Your task to perform on an android device: turn pop-ups on in chrome Image 0: 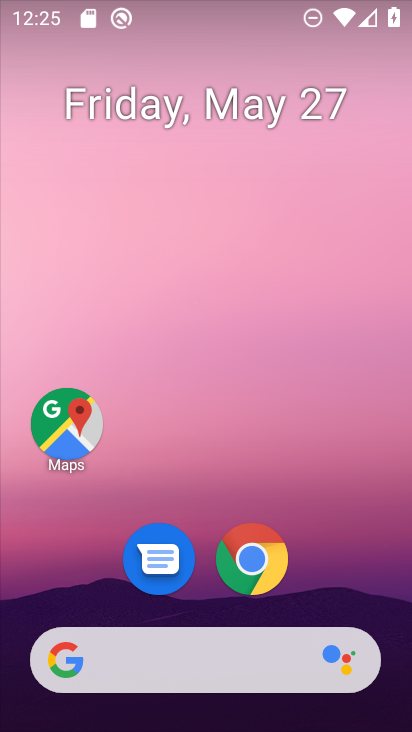
Step 0: click (262, 561)
Your task to perform on an android device: turn pop-ups on in chrome Image 1: 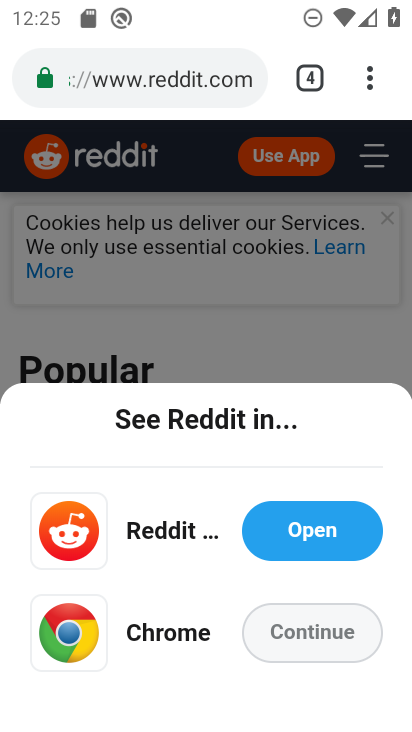
Step 1: click (365, 90)
Your task to perform on an android device: turn pop-ups on in chrome Image 2: 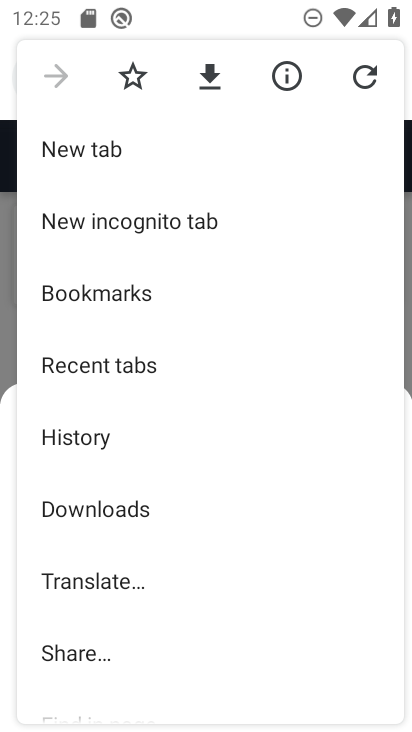
Step 2: drag from (135, 606) to (138, 449)
Your task to perform on an android device: turn pop-ups on in chrome Image 3: 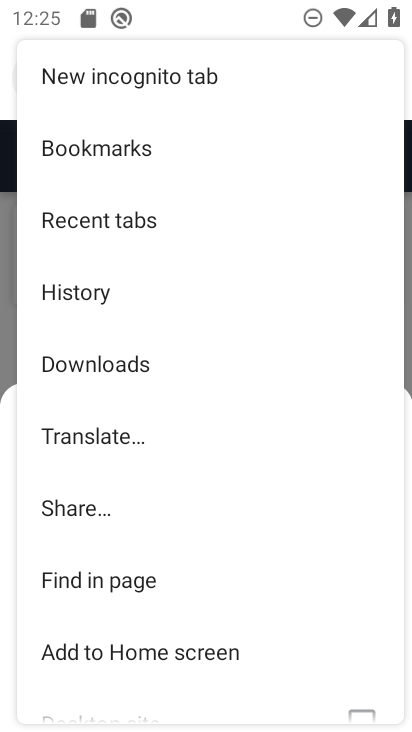
Step 3: drag from (138, 698) to (169, 130)
Your task to perform on an android device: turn pop-ups on in chrome Image 4: 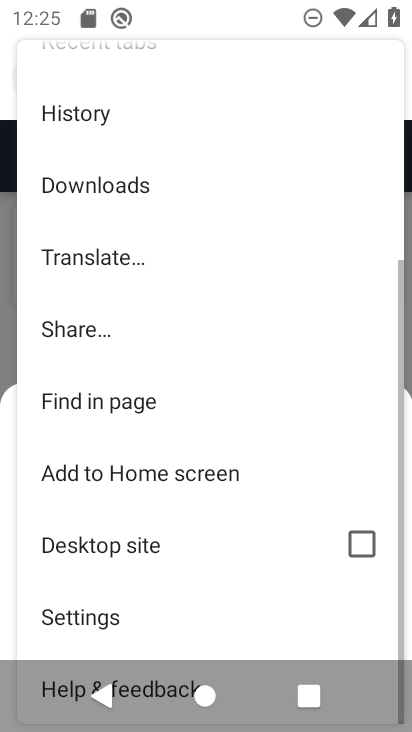
Step 4: click (56, 565)
Your task to perform on an android device: turn pop-ups on in chrome Image 5: 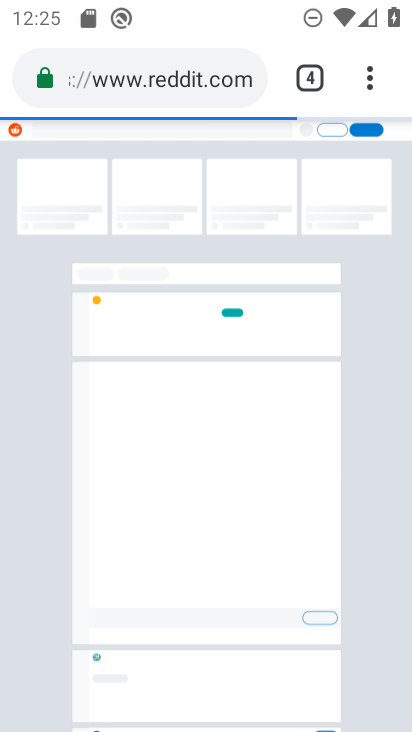
Step 5: click (371, 83)
Your task to perform on an android device: turn pop-ups on in chrome Image 6: 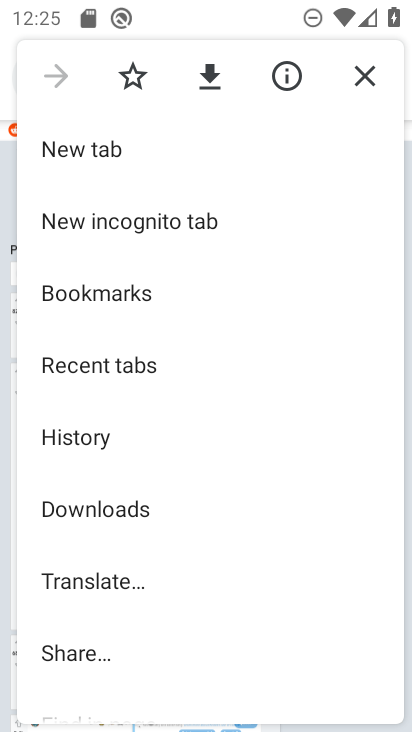
Step 6: drag from (54, 697) to (241, 164)
Your task to perform on an android device: turn pop-ups on in chrome Image 7: 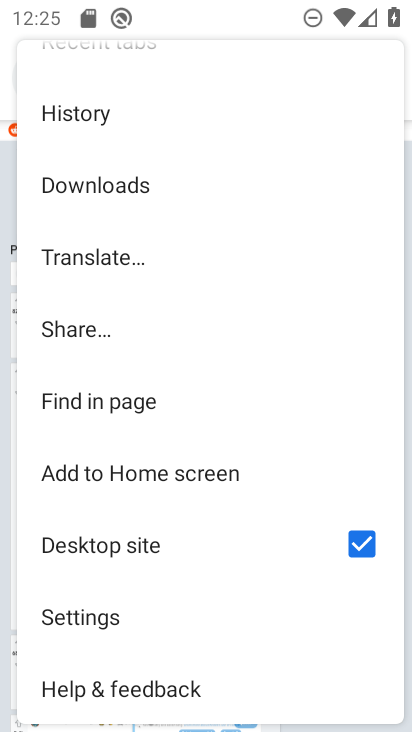
Step 7: click (116, 619)
Your task to perform on an android device: turn pop-ups on in chrome Image 8: 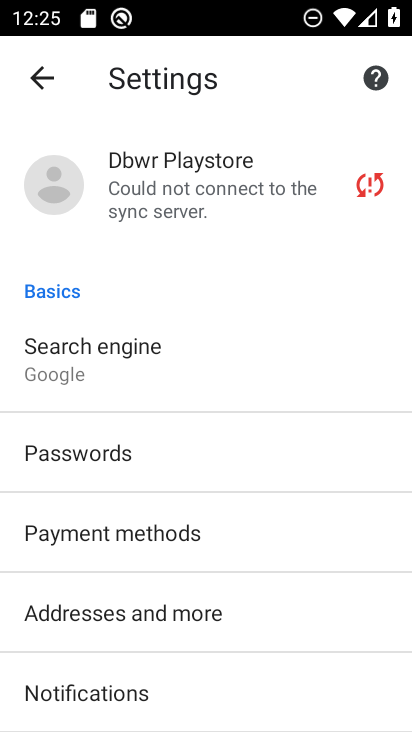
Step 8: drag from (132, 568) to (208, 99)
Your task to perform on an android device: turn pop-ups on in chrome Image 9: 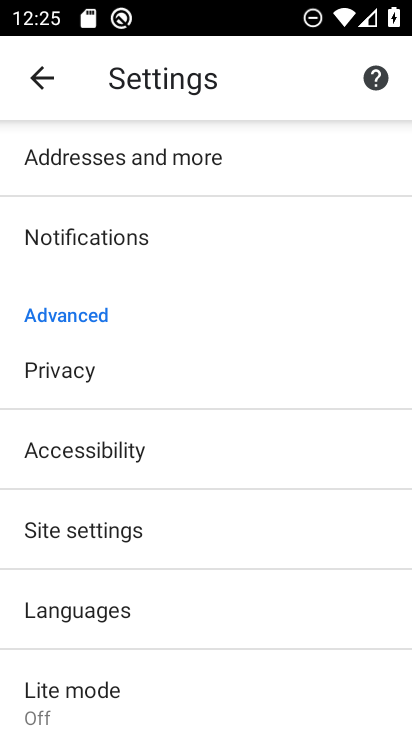
Step 9: click (132, 536)
Your task to perform on an android device: turn pop-ups on in chrome Image 10: 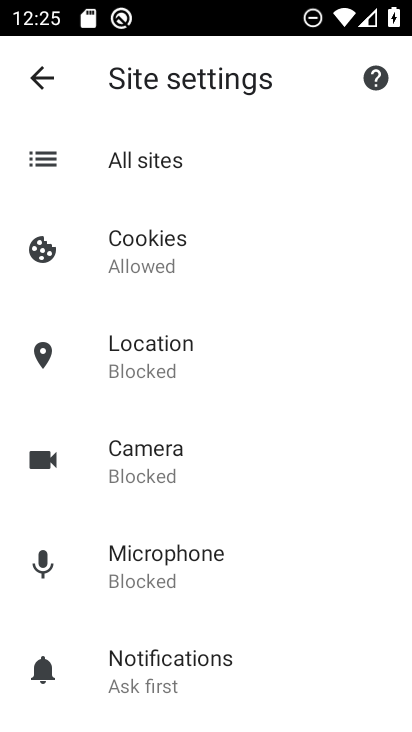
Step 10: drag from (137, 594) to (235, 226)
Your task to perform on an android device: turn pop-ups on in chrome Image 11: 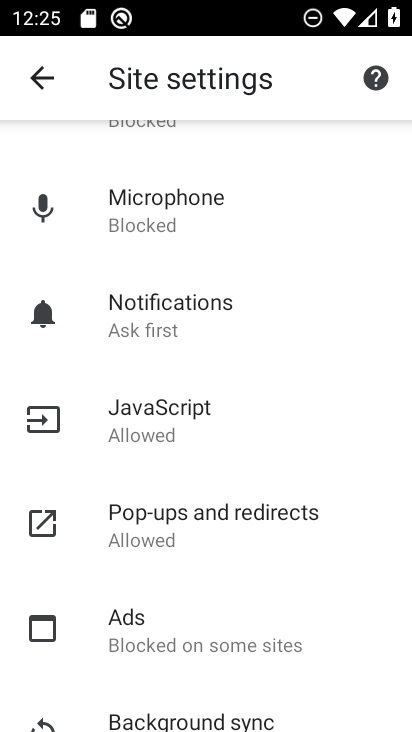
Step 11: click (207, 537)
Your task to perform on an android device: turn pop-ups on in chrome Image 12: 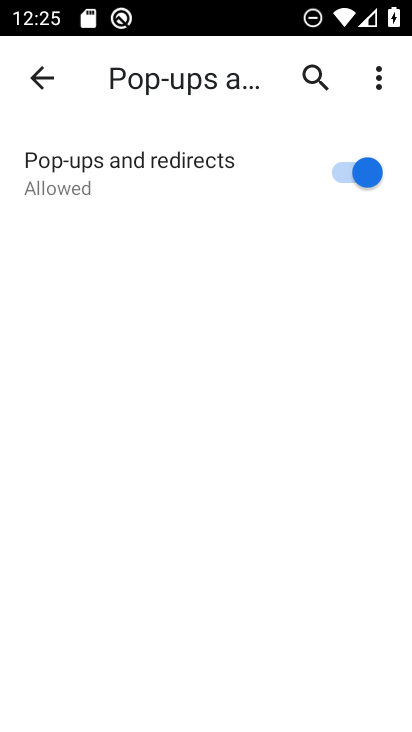
Step 12: task complete